Your task to perform on an android device: set the timer Image 0: 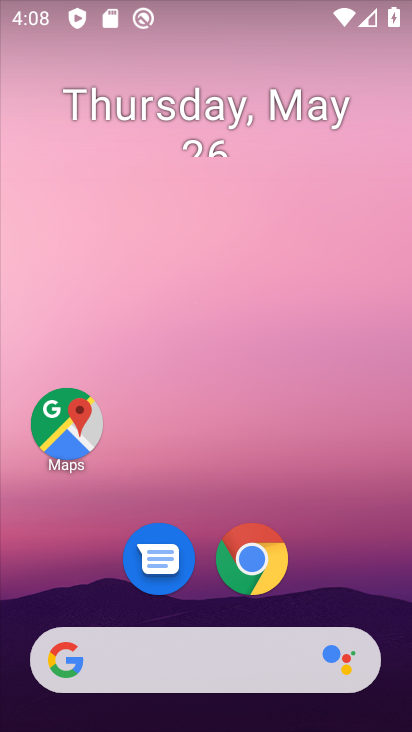
Step 0: click (239, 0)
Your task to perform on an android device: set the timer Image 1: 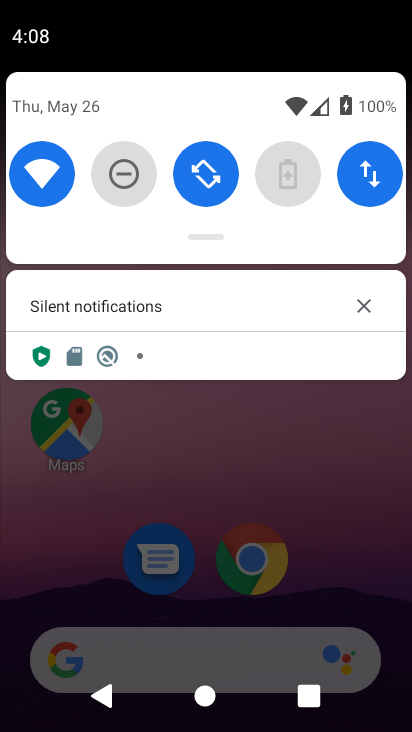
Step 1: click (201, 48)
Your task to perform on an android device: set the timer Image 2: 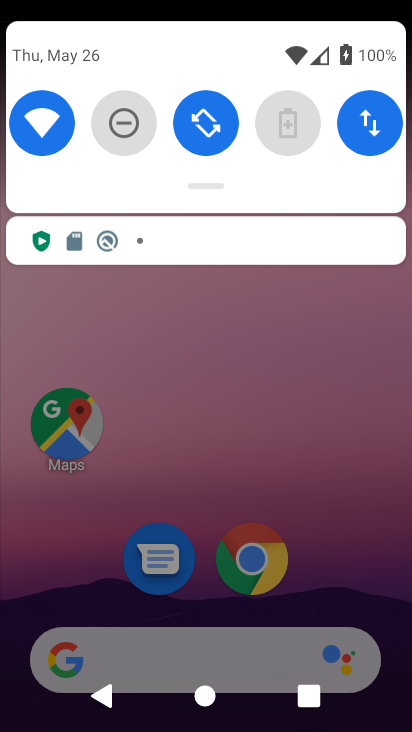
Step 2: drag from (295, 248) to (247, 17)
Your task to perform on an android device: set the timer Image 3: 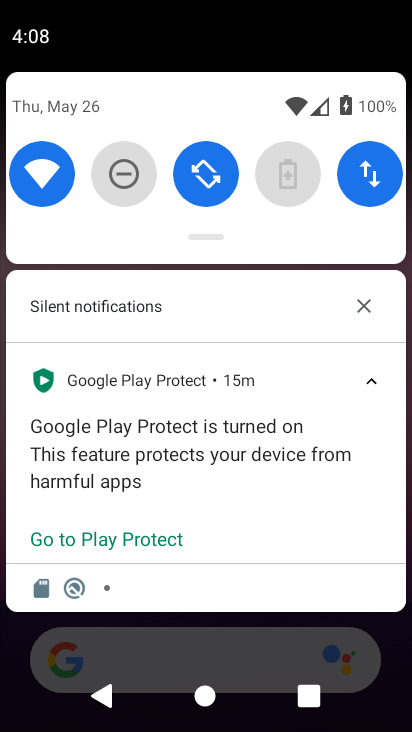
Step 3: drag from (316, 546) to (245, 0)
Your task to perform on an android device: set the timer Image 4: 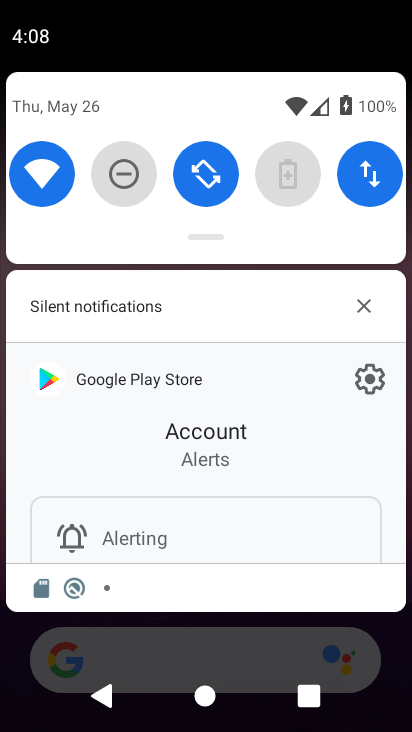
Step 4: drag from (293, 586) to (270, 101)
Your task to perform on an android device: set the timer Image 5: 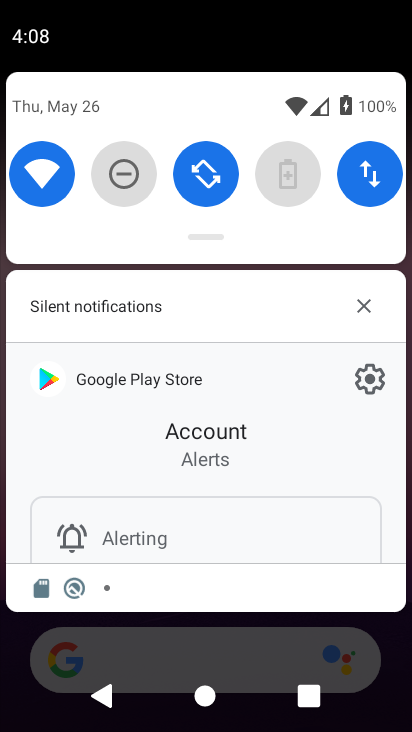
Step 5: press home button
Your task to perform on an android device: set the timer Image 6: 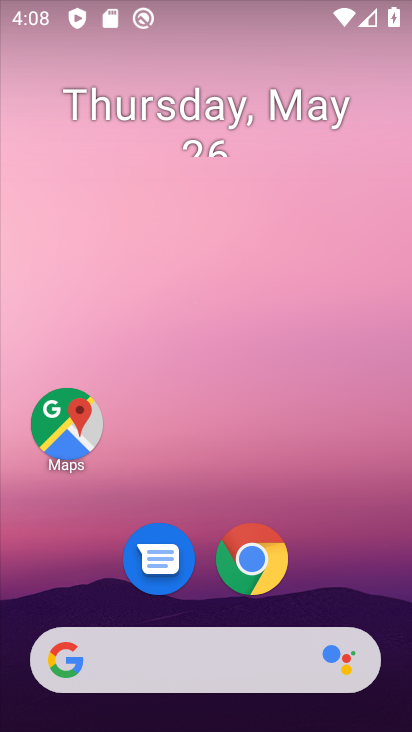
Step 6: drag from (324, 507) to (212, 21)
Your task to perform on an android device: set the timer Image 7: 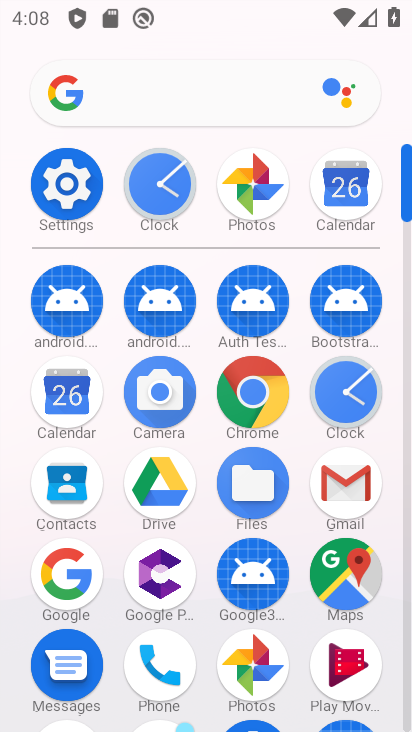
Step 7: click (160, 193)
Your task to perform on an android device: set the timer Image 8: 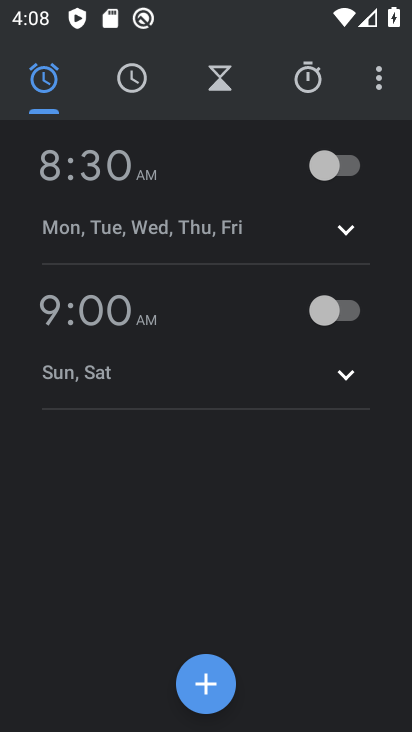
Step 8: click (222, 87)
Your task to perform on an android device: set the timer Image 9: 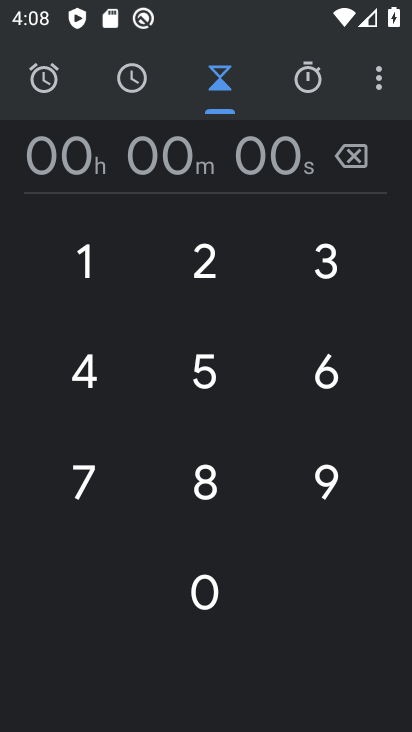
Step 9: click (107, 270)
Your task to perform on an android device: set the timer Image 10: 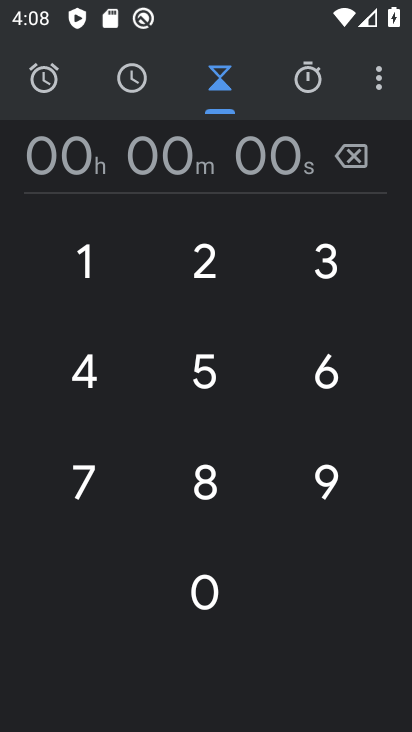
Step 10: click (106, 265)
Your task to perform on an android device: set the timer Image 11: 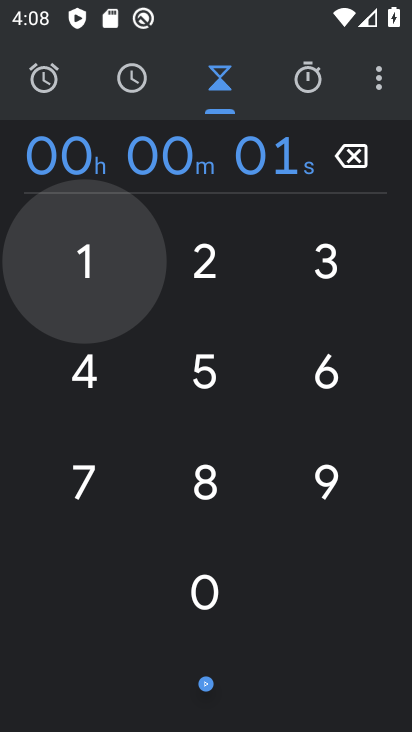
Step 11: click (107, 263)
Your task to perform on an android device: set the timer Image 12: 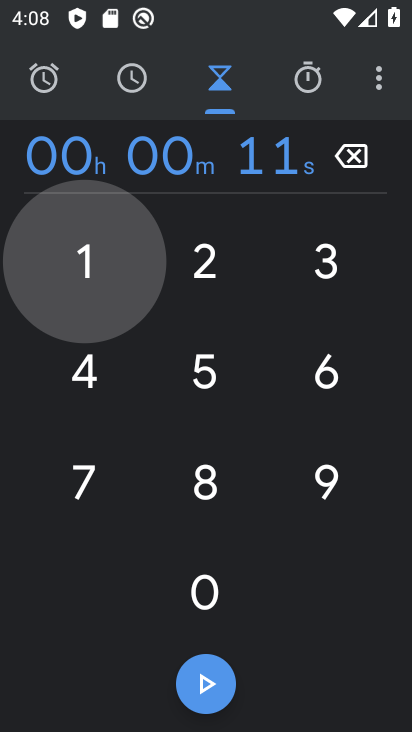
Step 12: click (108, 262)
Your task to perform on an android device: set the timer Image 13: 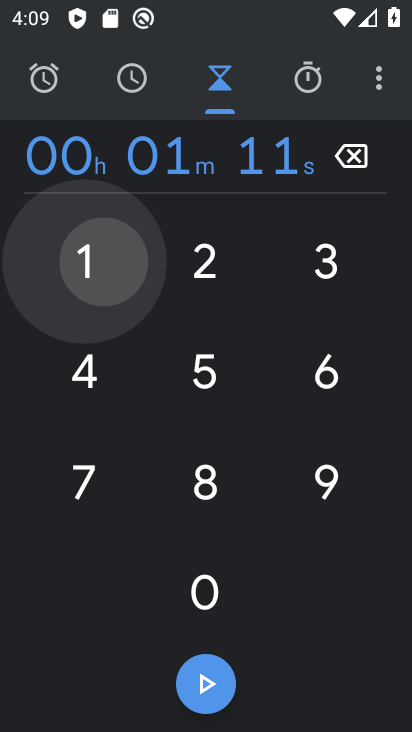
Step 13: click (108, 262)
Your task to perform on an android device: set the timer Image 14: 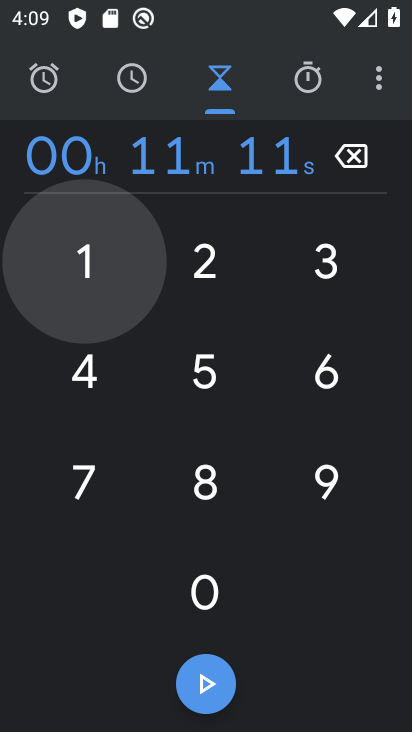
Step 14: click (108, 262)
Your task to perform on an android device: set the timer Image 15: 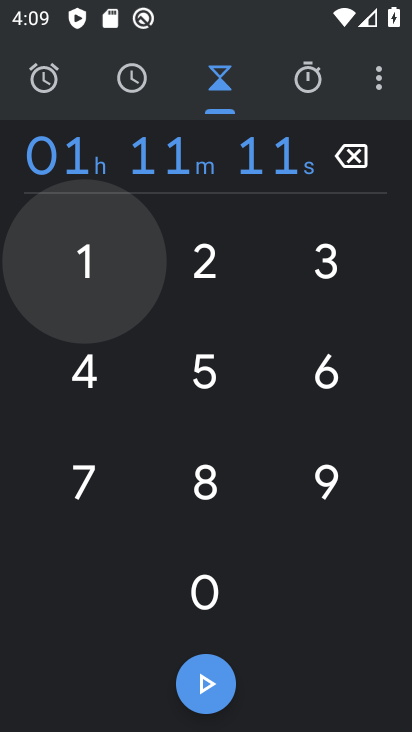
Step 15: click (108, 262)
Your task to perform on an android device: set the timer Image 16: 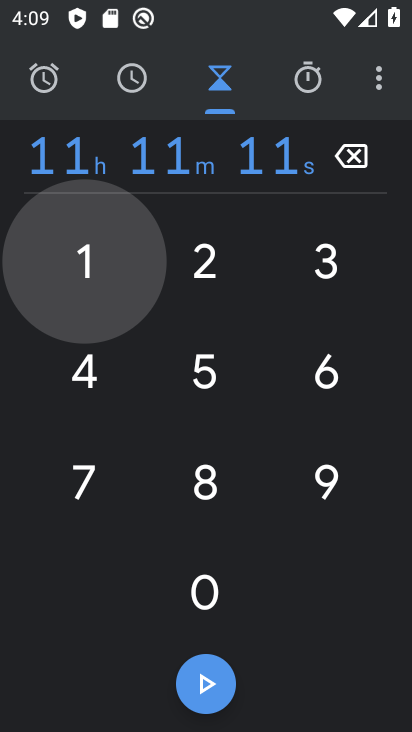
Step 16: click (108, 262)
Your task to perform on an android device: set the timer Image 17: 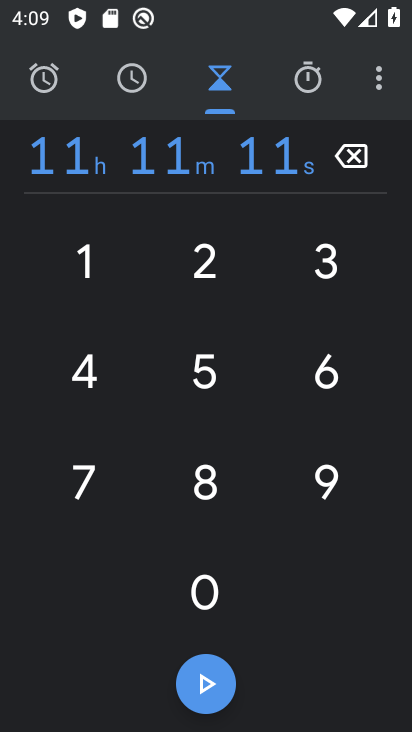
Step 17: click (229, 679)
Your task to perform on an android device: set the timer Image 18: 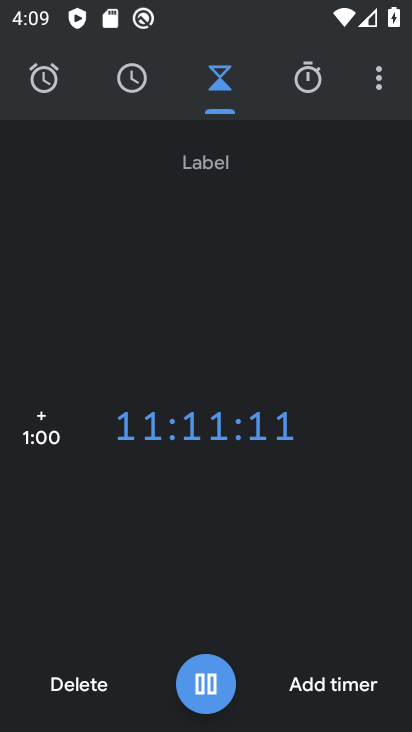
Step 18: task complete